Your task to perform on an android device: Open settings on Google Maps Image 0: 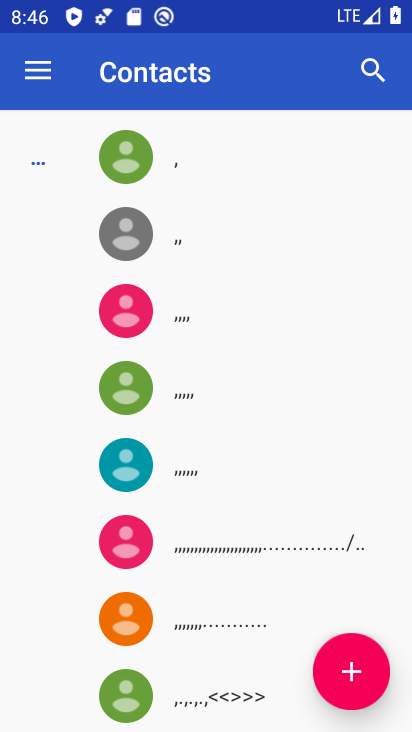
Step 0: press home button
Your task to perform on an android device: Open settings on Google Maps Image 1: 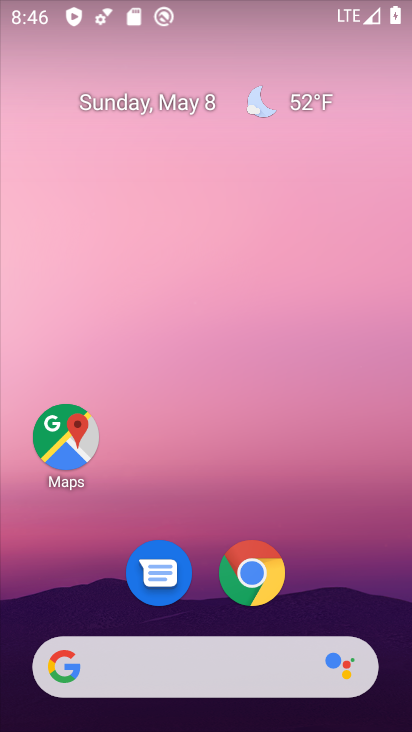
Step 1: drag from (211, 716) to (212, 233)
Your task to perform on an android device: Open settings on Google Maps Image 2: 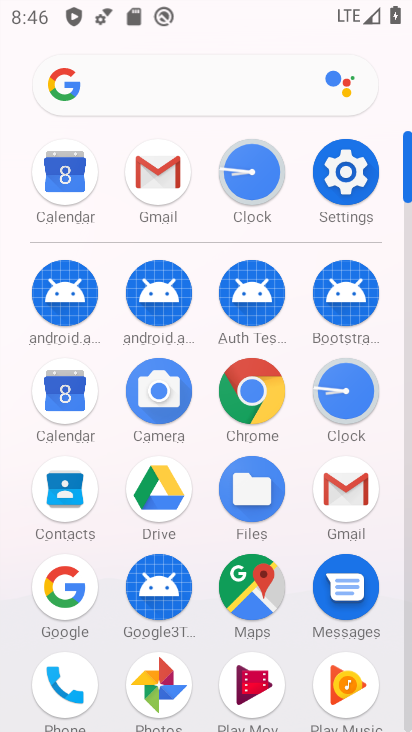
Step 2: click (258, 580)
Your task to perform on an android device: Open settings on Google Maps Image 3: 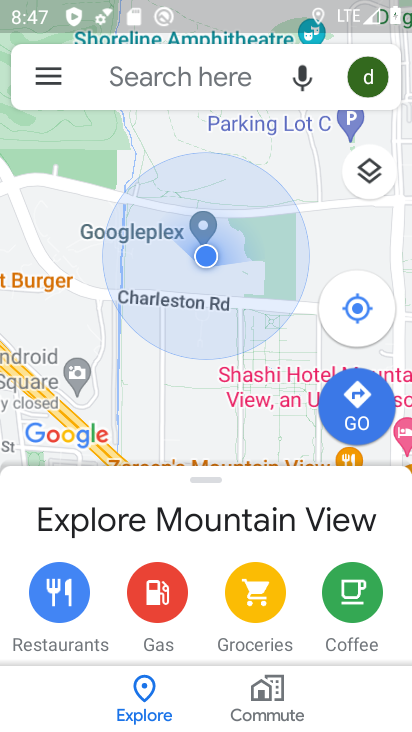
Step 3: click (42, 81)
Your task to perform on an android device: Open settings on Google Maps Image 4: 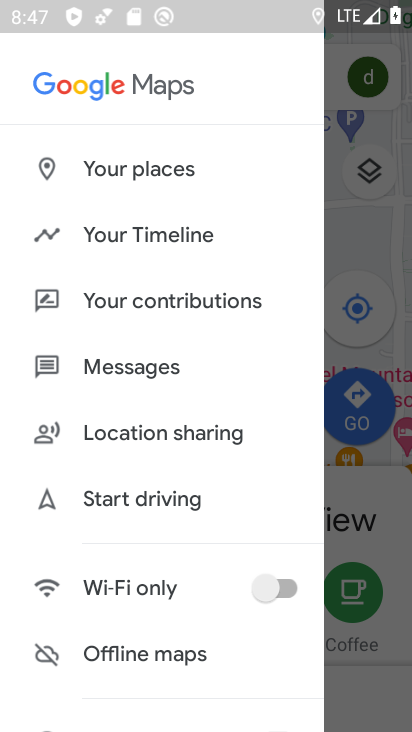
Step 4: drag from (163, 627) to (126, 264)
Your task to perform on an android device: Open settings on Google Maps Image 5: 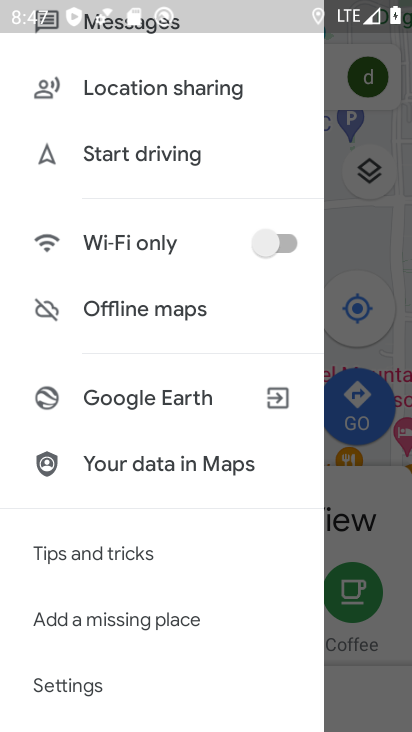
Step 5: click (72, 682)
Your task to perform on an android device: Open settings on Google Maps Image 6: 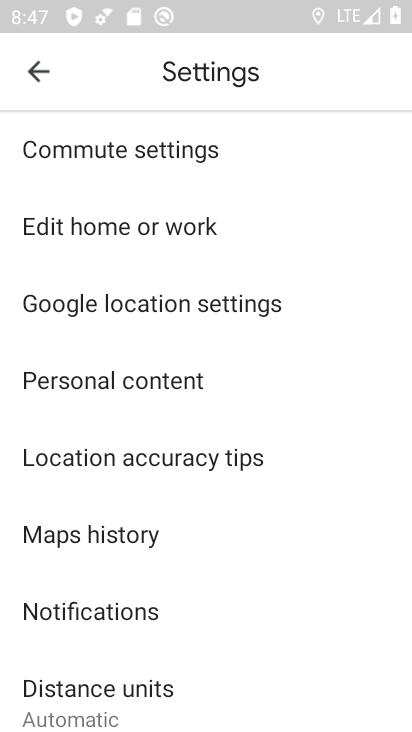
Step 6: task complete